Your task to perform on an android device: Search for "bose quietcomfort 35" on amazon, select the first entry, and add it to the cart. Image 0: 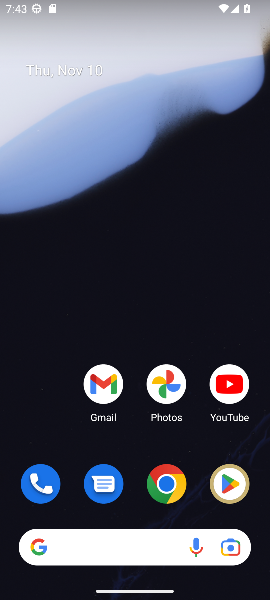
Step 0: click (161, 487)
Your task to perform on an android device: Search for "bose quietcomfort 35" on amazon, select the first entry, and add it to the cart. Image 1: 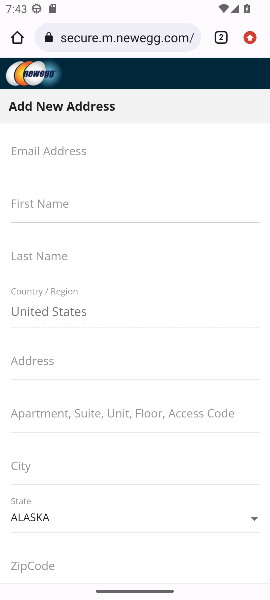
Step 1: click (102, 39)
Your task to perform on an android device: Search for "bose quietcomfort 35" on amazon, select the first entry, and add it to the cart. Image 2: 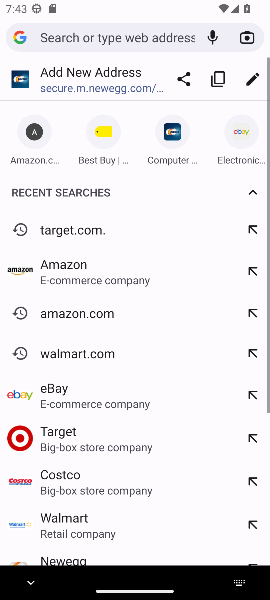
Step 2: click (35, 154)
Your task to perform on an android device: Search for "bose quietcomfort 35" on amazon, select the first entry, and add it to the cart. Image 3: 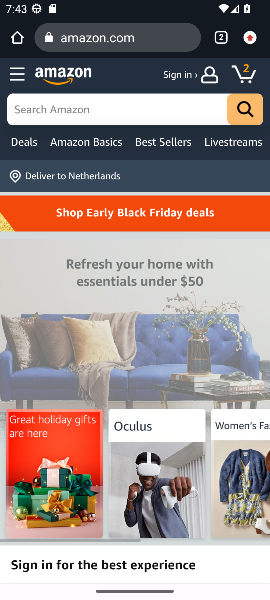
Step 3: click (61, 110)
Your task to perform on an android device: Search for "bose quietcomfort 35" on amazon, select the first entry, and add it to the cart. Image 4: 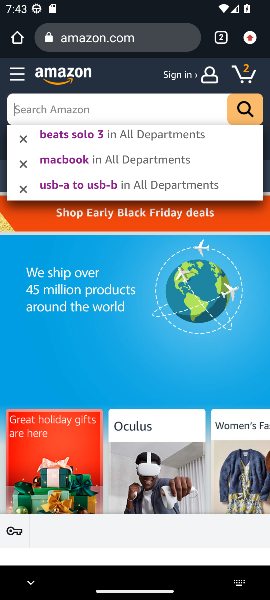
Step 4: type "bose quietcomfort 35"
Your task to perform on an android device: Search for "bose quietcomfort 35" on amazon, select the first entry, and add it to the cart. Image 5: 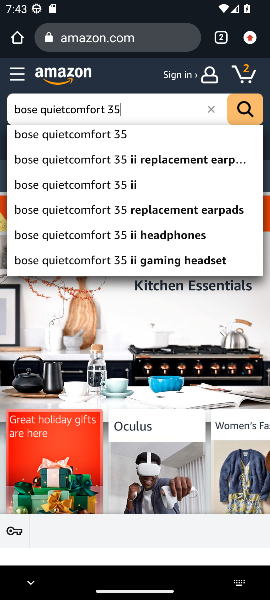
Step 5: click (79, 141)
Your task to perform on an android device: Search for "bose quietcomfort 35" on amazon, select the first entry, and add it to the cart. Image 6: 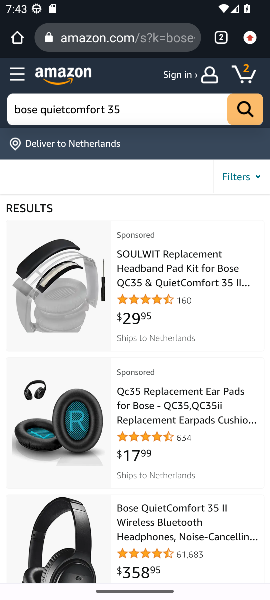
Step 6: click (33, 292)
Your task to perform on an android device: Search for "bose quietcomfort 35" on amazon, select the first entry, and add it to the cart. Image 7: 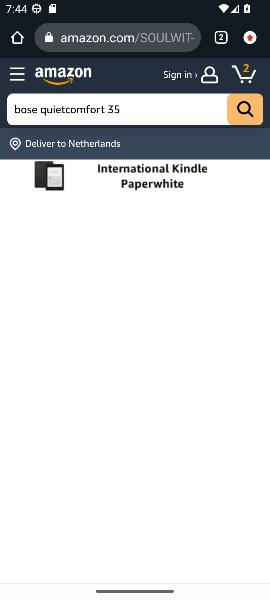
Step 7: drag from (113, 325) to (101, 427)
Your task to perform on an android device: Search for "bose quietcomfort 35" on amazon, select the first entry, and add it to the cart. Image 8: 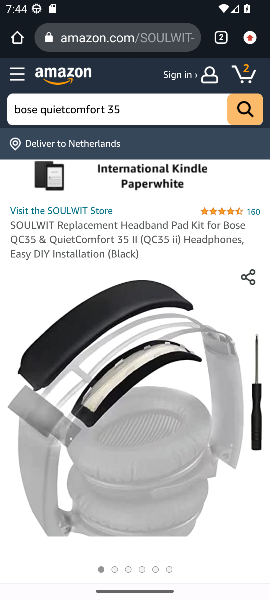
Step 8: drag from (101, 427) to (103, 215)
Your task to perform on an android device: Search for "bose quietcomfort 35" on amazon, select the first entry, and add it to the cart. Image 9: 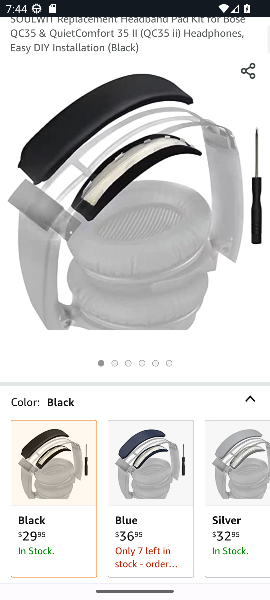
Step 9: drag from (104, 444) to (108, 211)
Your task to perform on an android device: Search for "bose quietcomfort 35" on amazon, select the first entry, and add it to the cart. Image 10: 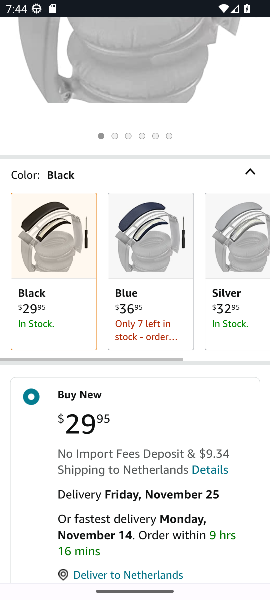
Step 10: drag from (125, 404) to (132, 198)
Your task to perform on an android device: Search for "bose quietcomfort 35" on amazon, select the first entry, and add it to the cart. Image 11: 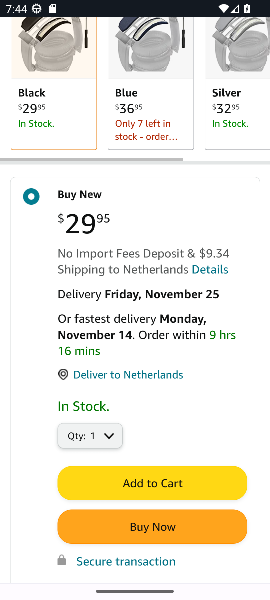
Step 11: click (141, 479)
Your task to perform on an android device: Search for "bose quietcomfort 35" on amazon, select the first entry, and add it to the cart. Image 12: 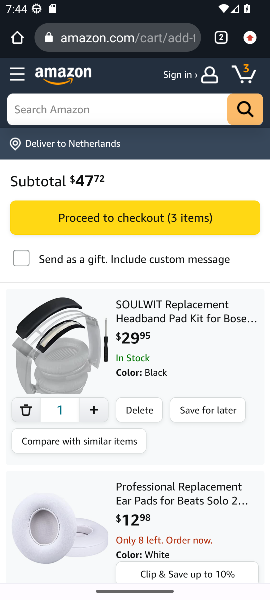
Step 12: task complete